Your task to perform on an android device: Go to CNN.com Image 0: 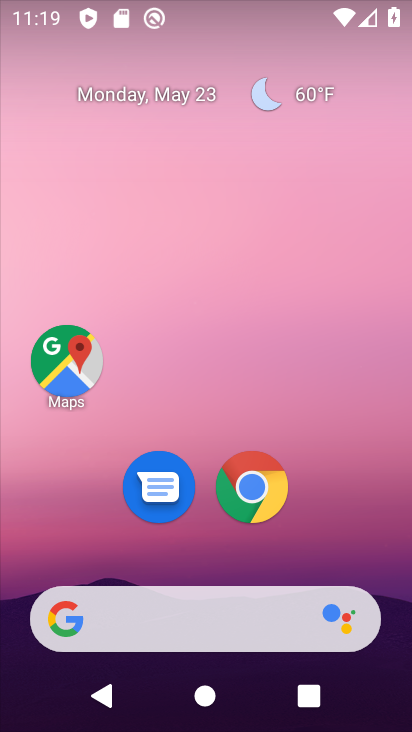
Step 0: click (266, 513)
Your task to perform on an android device: Go to CNN.com Image 1: 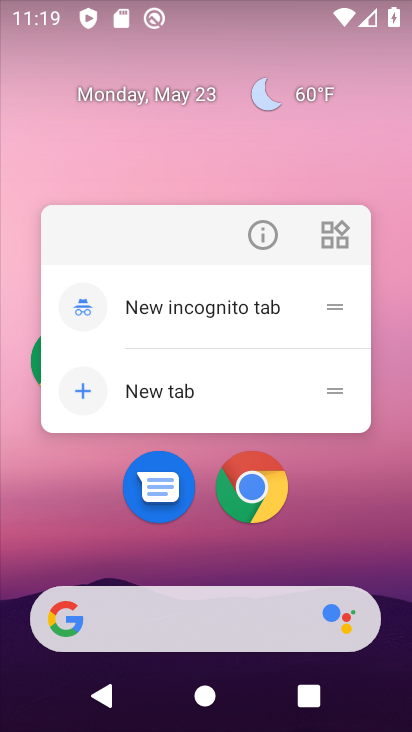
Step 1: click (256, 492)
Your task to perform on an android device: Go to CNN.com Image 2: 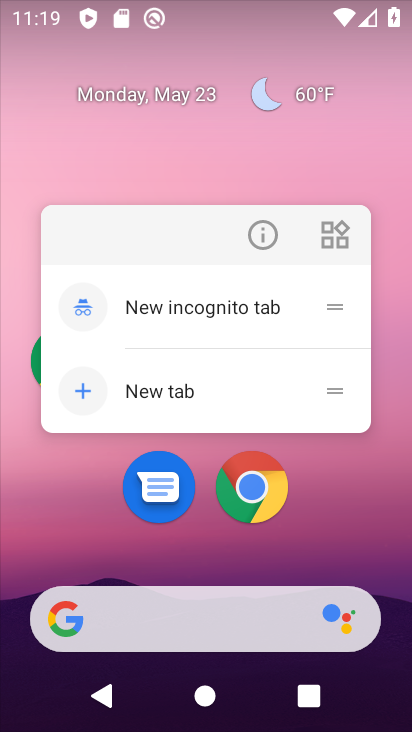
Step 2: click (256, 481)
Your task to perform on an android device: Go to CNN.com Image 3: 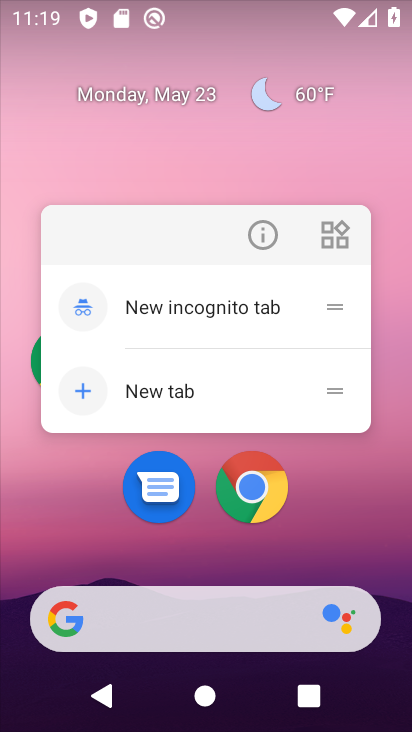
Step 3: click (256, 481)
Your task to perform on an android device: Go to CNN.com Image 4: 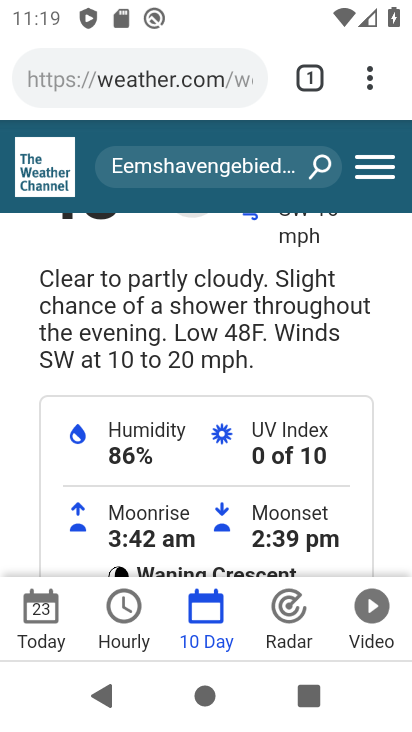
Step 4: click (200, 82)
Your task to perform on an android device: Go to CNN.com Image 5: 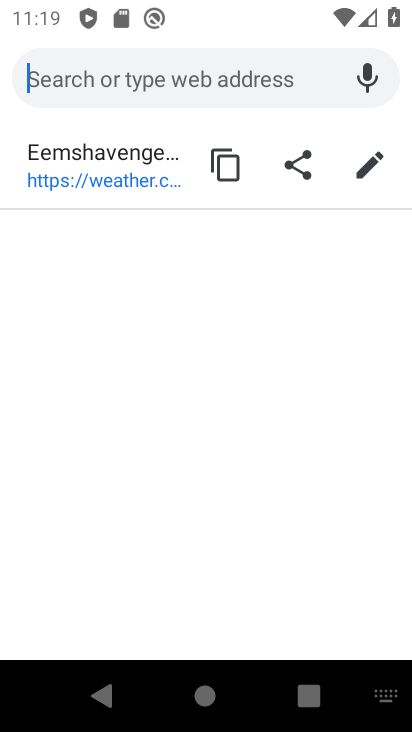
Step 5: type "CNN.com"
Your task to perform on an android device: Go to CNN.com Image 6: 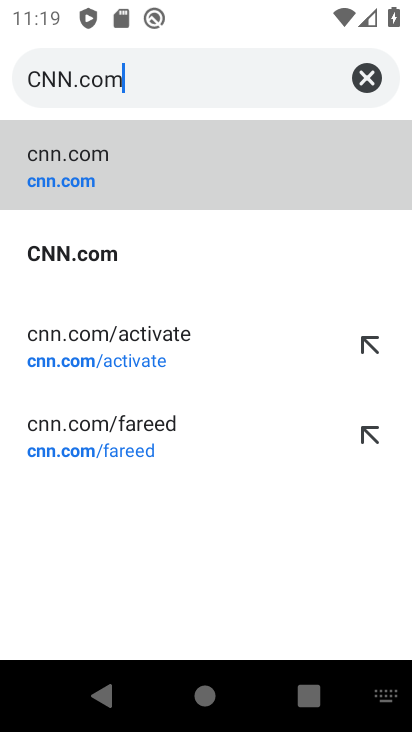
Step 6: click (123, 251)
Your task to perform on an android device: Go to CNN.com Image 7: 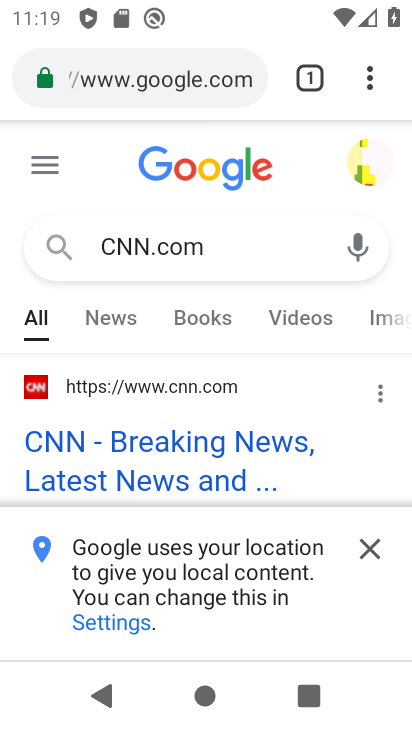
Step 7: click (368, 566)
Your task to perform on an android device: Go to CNN.com Image 8: 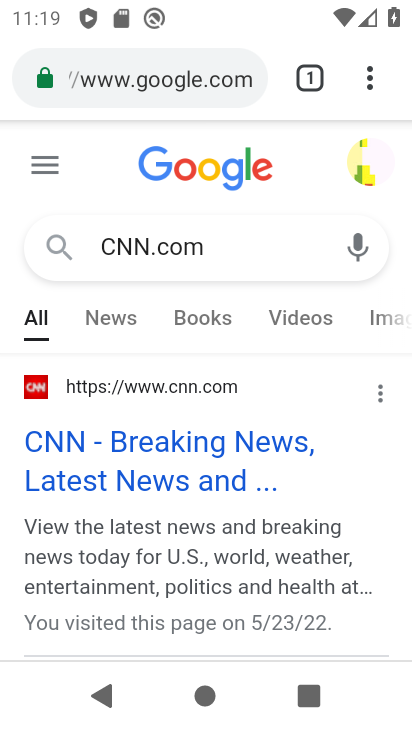
Step 8: click (96, 467)
Your task to perform on an android device: Go to CNN.com Image 9: 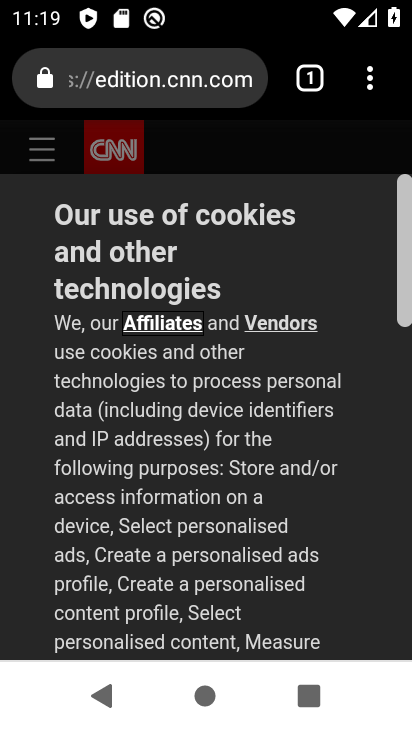
Step 9: drag from (267, 606) to (411, 206)
Your task to perform on an android device: Go to CNN.com Image 10: 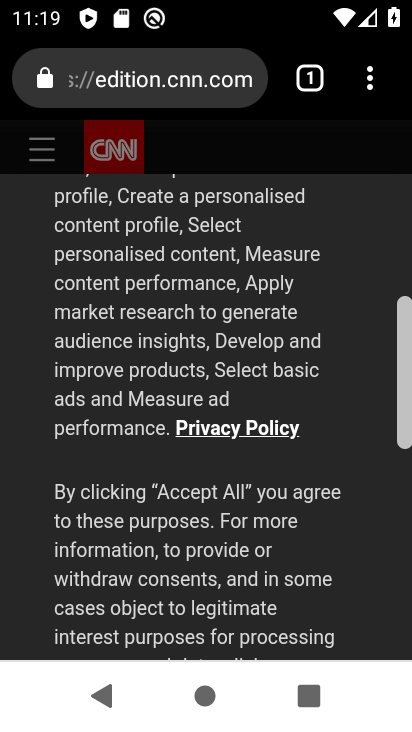
Step 10: drag from (274, 592) to (387, 186)
Your task to perform on an android device: Go to CNN.com Image 11: 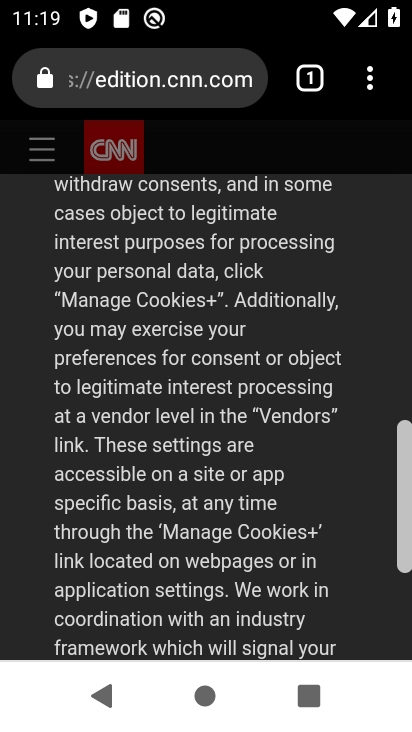
Step 11: drag from (197, 640) to (331, 221)
Your task to perform on an android device: Go to CNN.com Image 12: 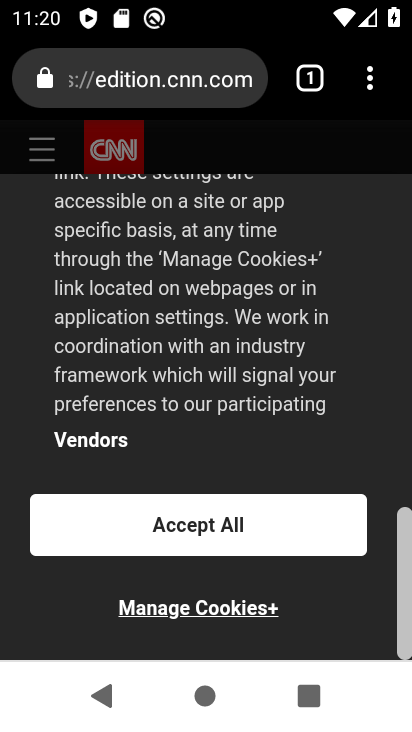
Step 12: click (244, 534)
Your task to perform on an android device: Go to CNN.com Image 13: 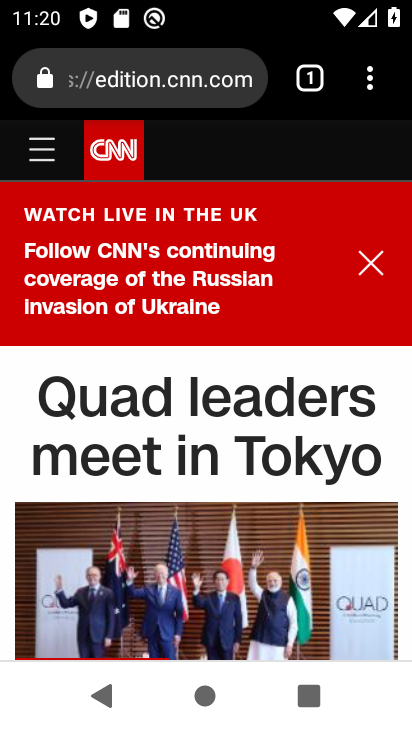
Step 13: task complete